Your task to perform on an android device: Open internet settings Image 0: 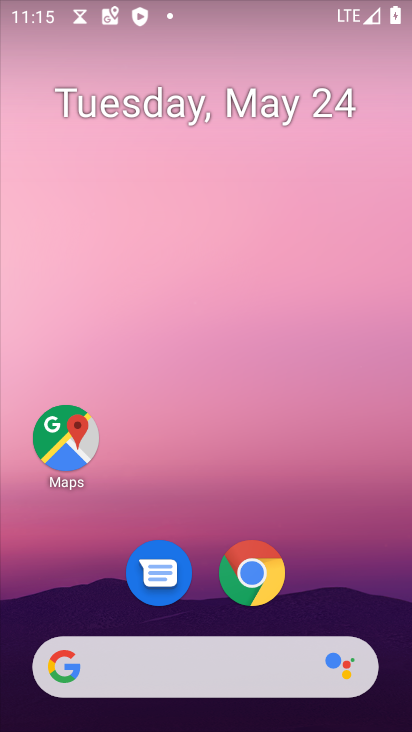
Step 0: drag from (50, 627) to (191, 348)
Your task to perform on an android device: Open internet settings Image 1: 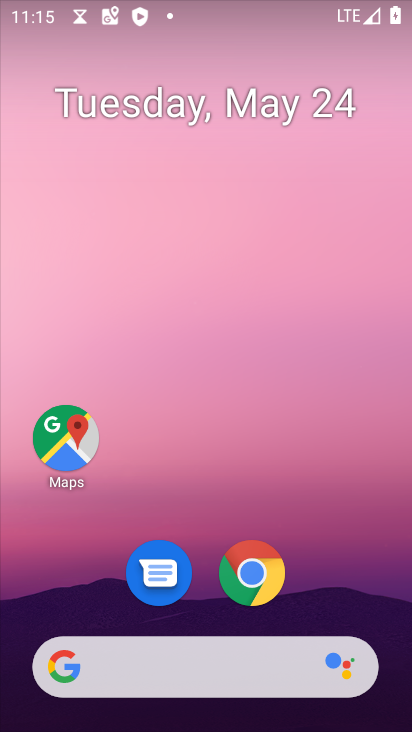
Step 1: drag from (71, 586) to (115, 353)
Your task to perform on an android device: Open internet settings Image 2: 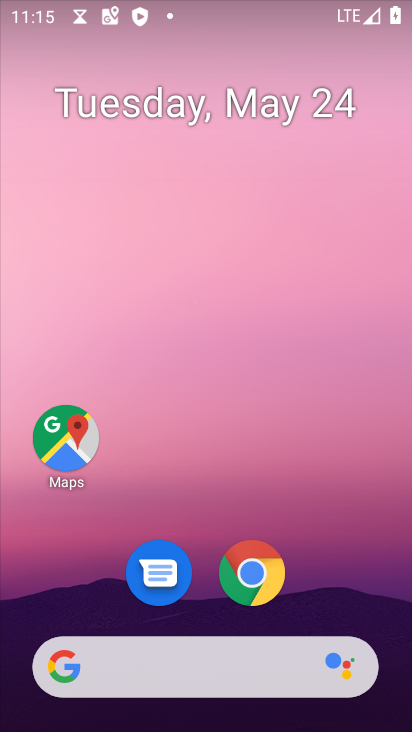
Step 2: drag from (92, 623) to (198, 122)
Your task to perform on an android device: Open internet settings Image 3: 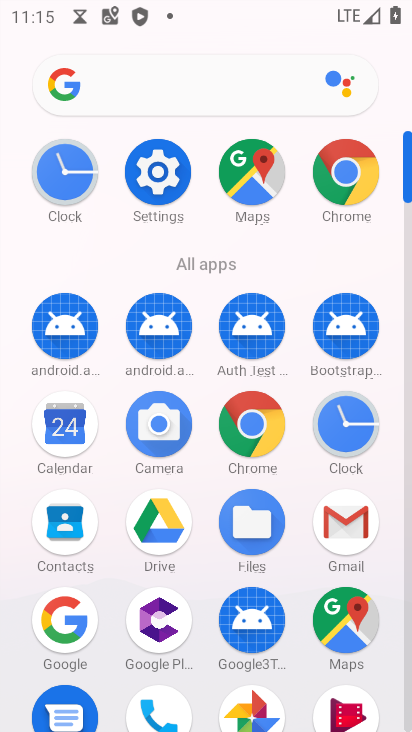
Step 3: drag from (156, 657) to (219, 370)
Your task to perform on an android device: Open internet settings Image 4: 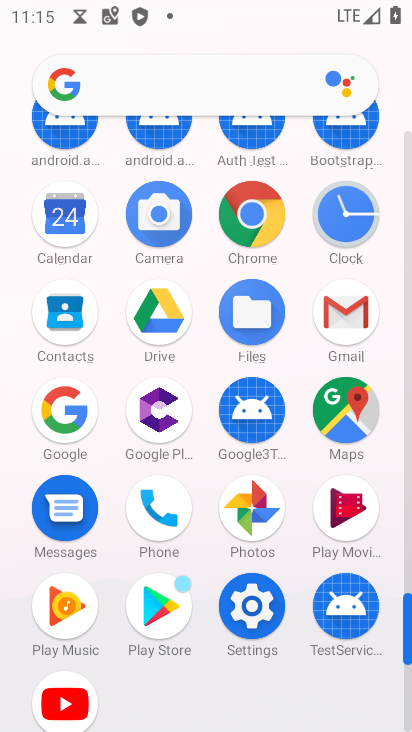
Step 4: click (249, 621)
Your task to perform on an android device: Open internet settings Image 5: 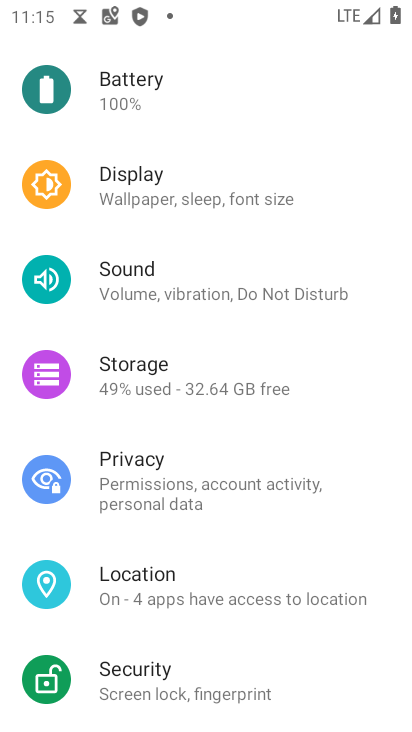
Step 5: drag from (238, 130) to (189, 556)
Your task to perform on an android device: Open internet settings Image 6: 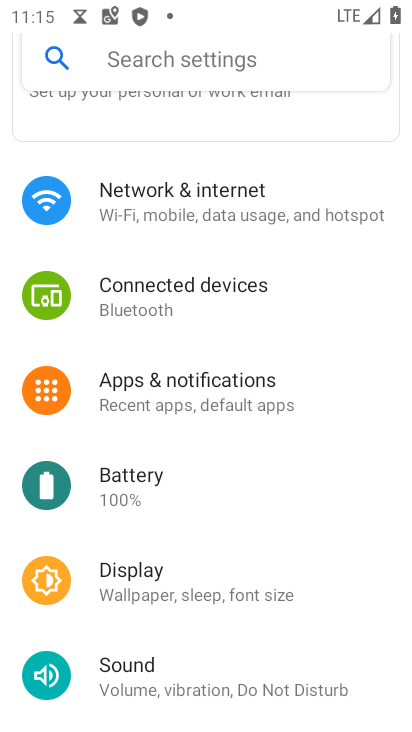
Step 6: click (218, 198)
Your task to perform on an android device: Open internet settings Image 7: 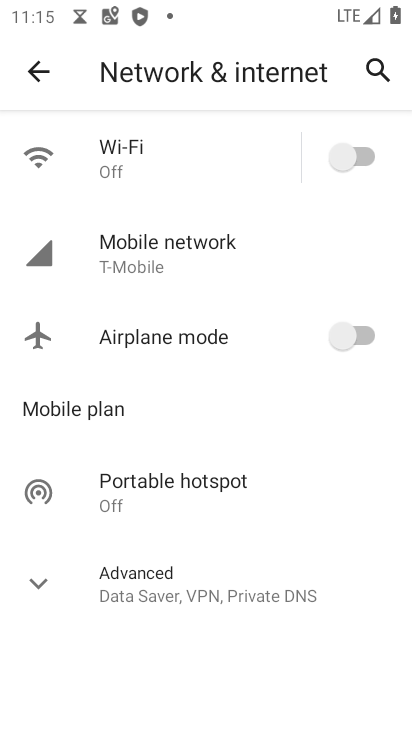
Step 7: click (231, 257)
Your task to perform on an android device: Open internet settings Image 8: 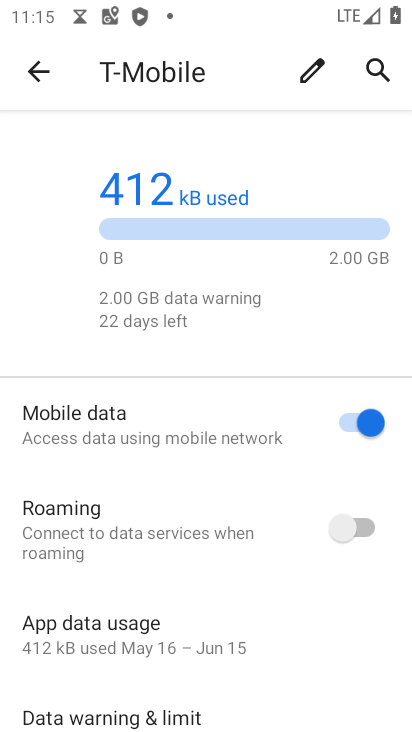
Step 8: task complete